Your task to perform on an android device: turn on the 12-hour format for clock Image 0: 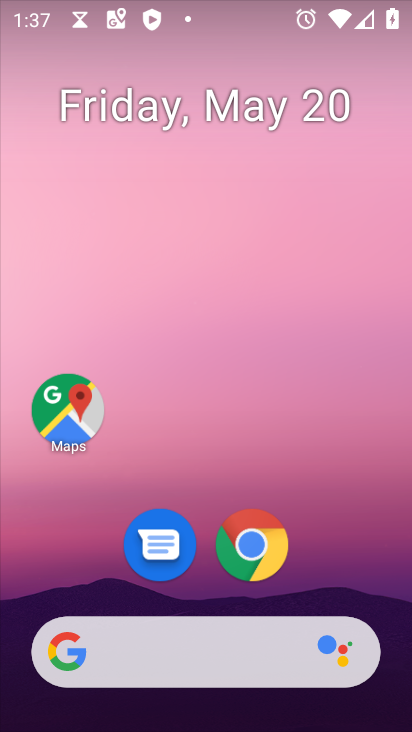
Step 0: drag from (311, 564) to (287, 311)
Your task to perform on an android device: turn on the 12-hour format for clock Image 1: 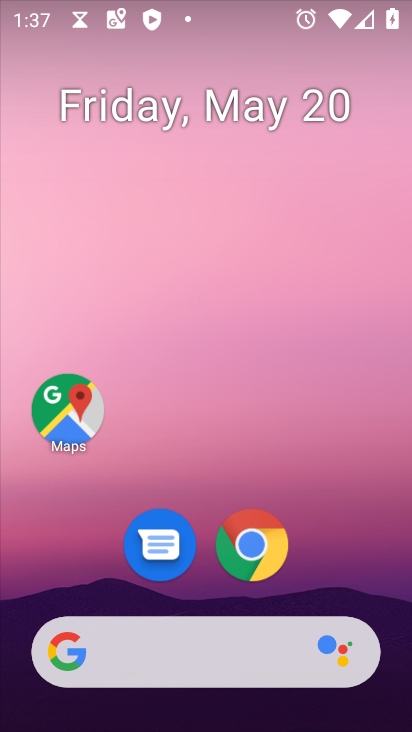
Step 1: drag from (314, 540) to (263, 13)
Your task to perform on an android device: turn on the 12-hour format for clock Image 2: 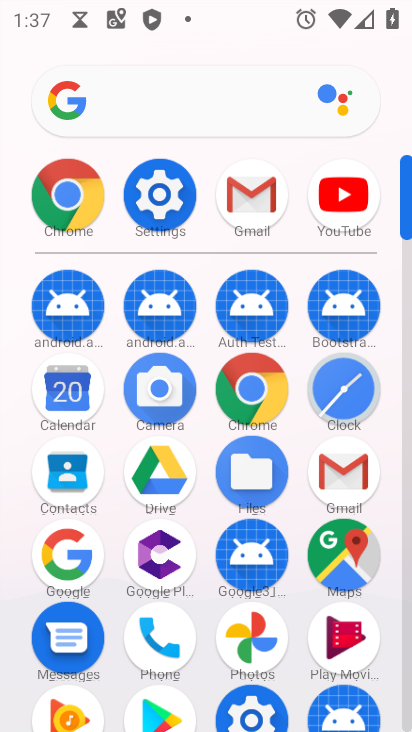
Step 2: click (341, 388)
Your task to perform on an android device: turn on the 12-hour format for clock Image 3: 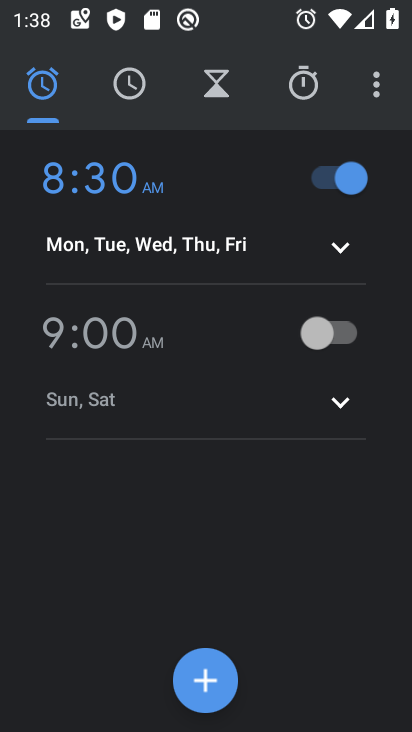
Step 3: click (380, 82)
Your task to perform on an android device: turn on the 12-hour format for clock Image 4: 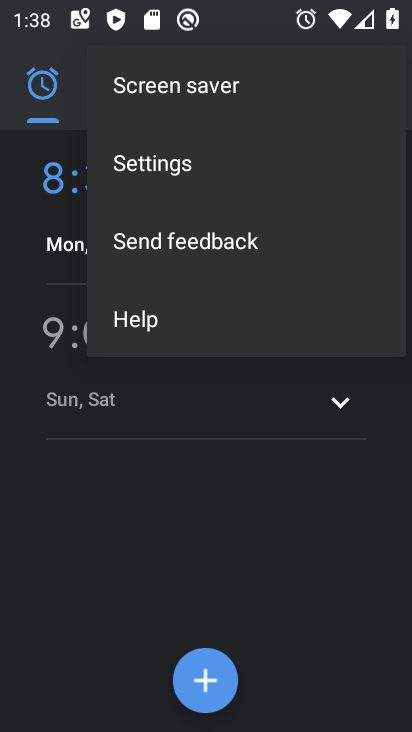
Step 4: click (170, 177)
Your task to perform on an android device: turn on the 12-hour format for clock Image 5: 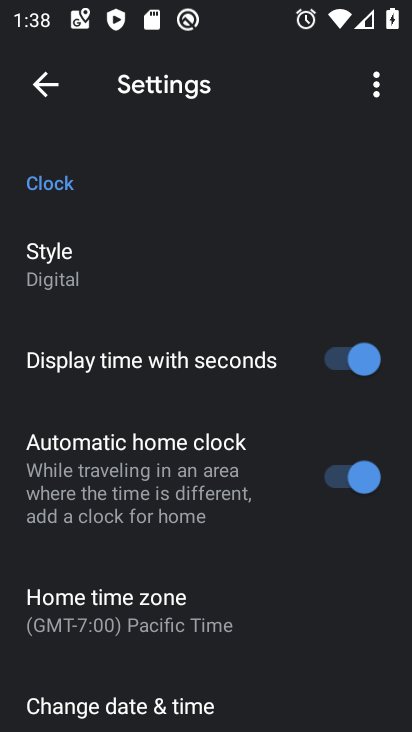
Step 5: drag from (272, 638) to (247, 356)
Your task to perform on an android device: turn on the 12-hour format for clock Image 6: 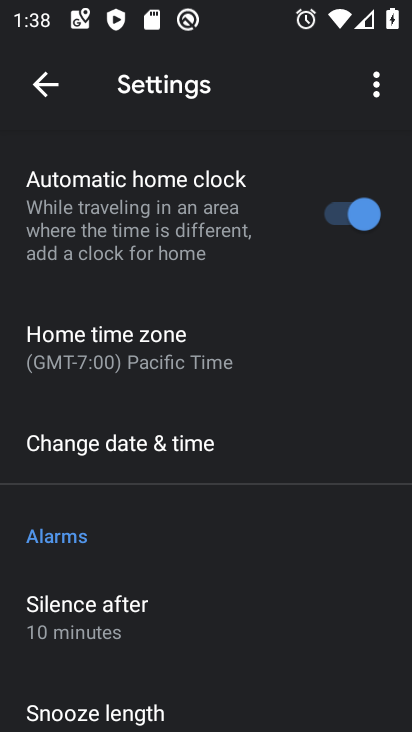
Step 6: click (212, 441)
Your task to perform on an android device: turn on the 12-hour format for clock Image 7: 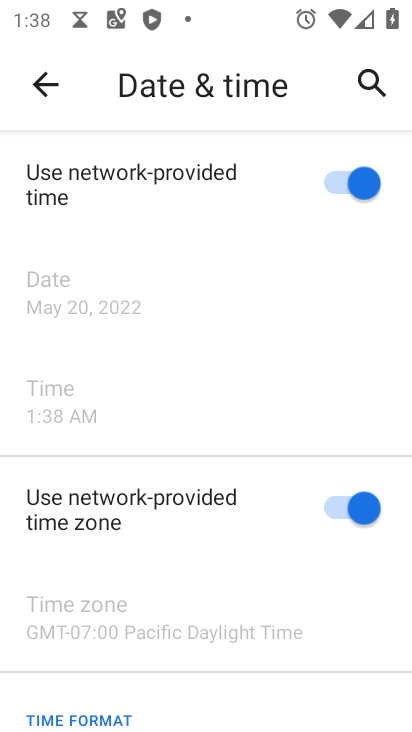
Step 7: task complete